Your task to perform on an android device: clear history in the chrome app Image 0: 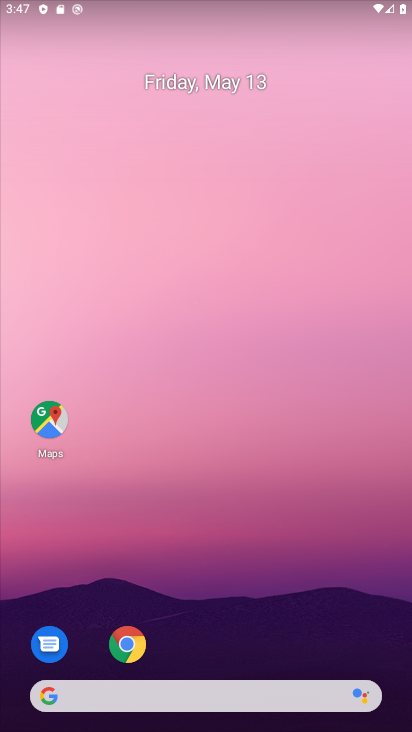
Step 0: click (135, 638)
Your task to perform on an android device: clear history in the chrome app Image 1: 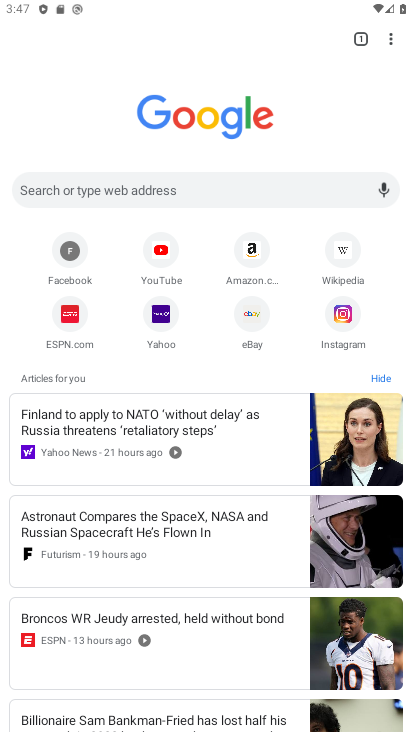
Step 1: click (394, 44)
Your task to perform on an android device: clear history in the chrome app Image 2: 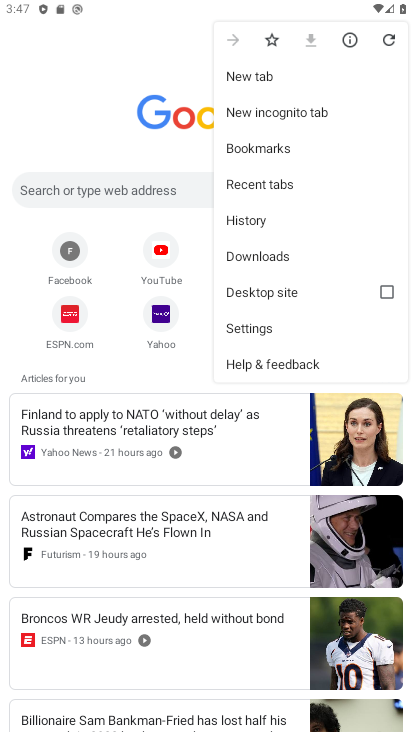
Step 2: click (249, 225)
Your task to perform on an android device: clear history in the chrome app Image 3: 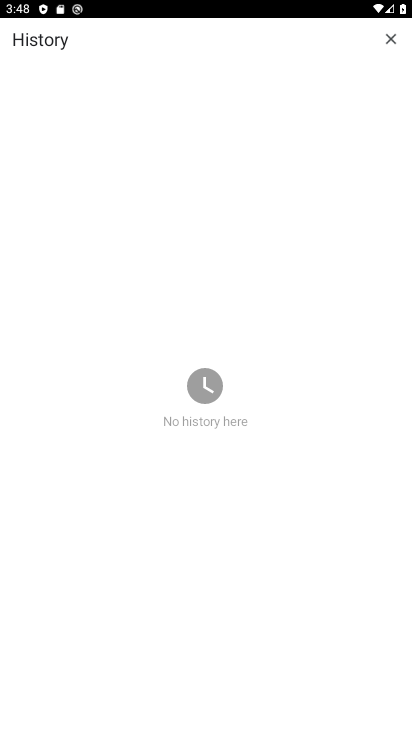
Step 3: task complete